Your task to perform on an android device: Open Yahoo.com Image 0: 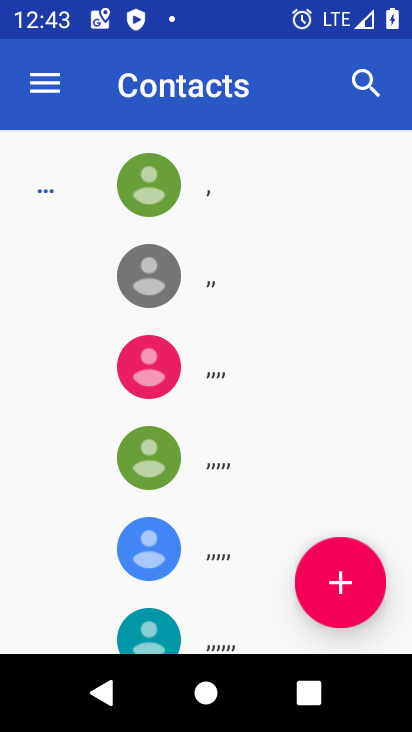
Step 0: press home button
Your task to perform on an android device: Open Yahoo.com Image 1: 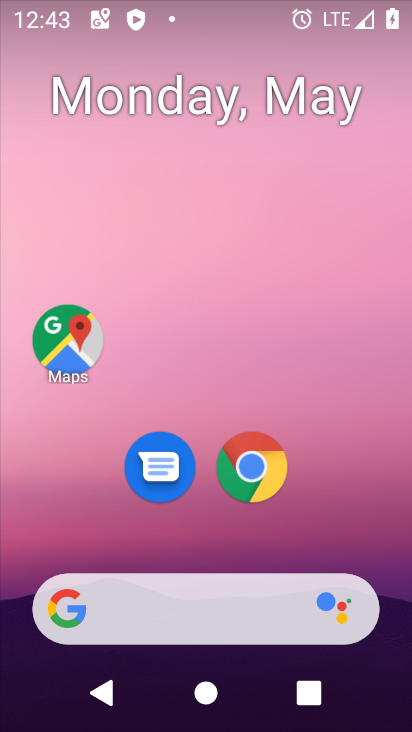
Step 1: click (260, 473)
Your task to perform on an android device: Open Yahoo.com Image 2: 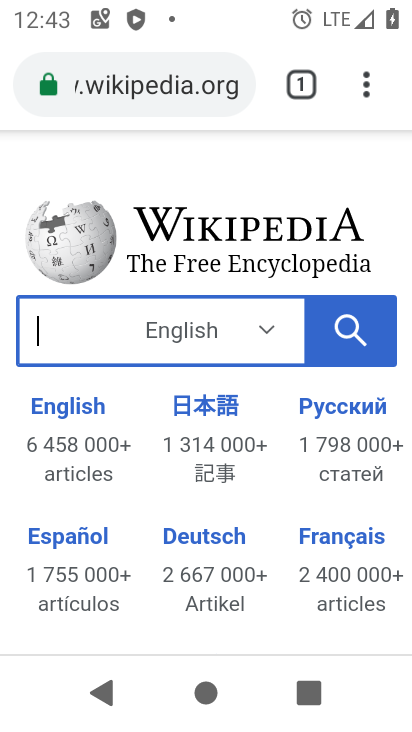
Step 2: click (126, 92)
Your task to perform on an android device: Open Yahoo.com Image 3: 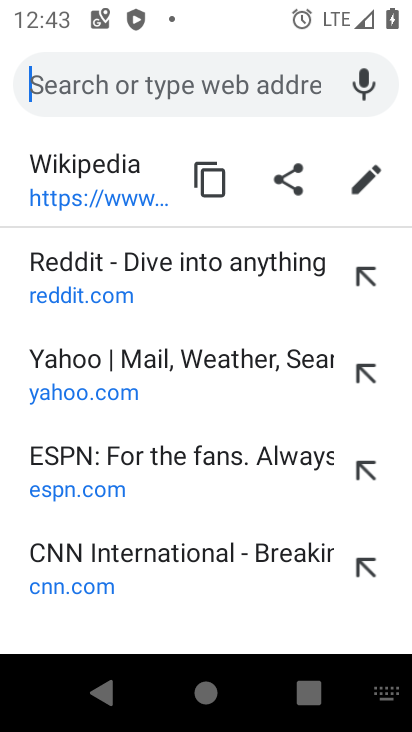
Step 3: click (96, 358)
Your task to perform on an android device: Open Yahoo.com Image 4: 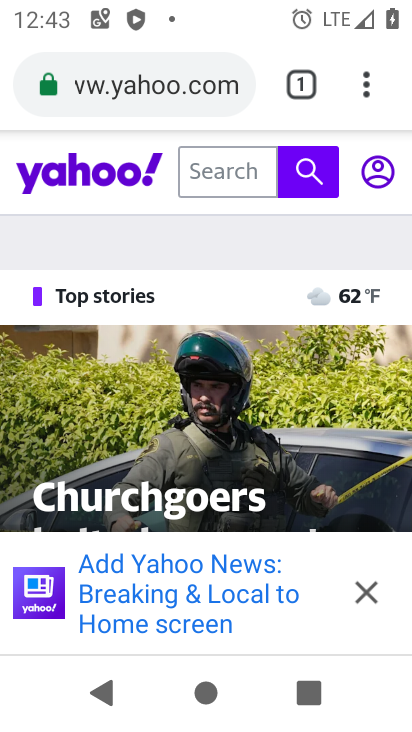
Step 4: task complete